Your task to perform on an android device: Open internet settings Image 0: 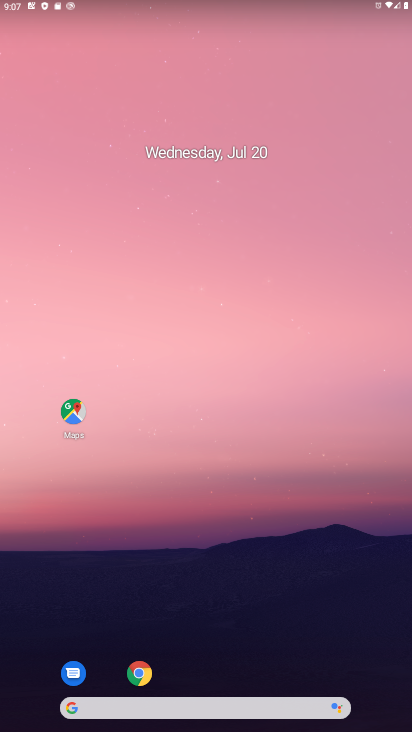
Step 0: drag from (207, 725) to (227, 283)
Your task to perform on an android device: Open internet settings Image 1: 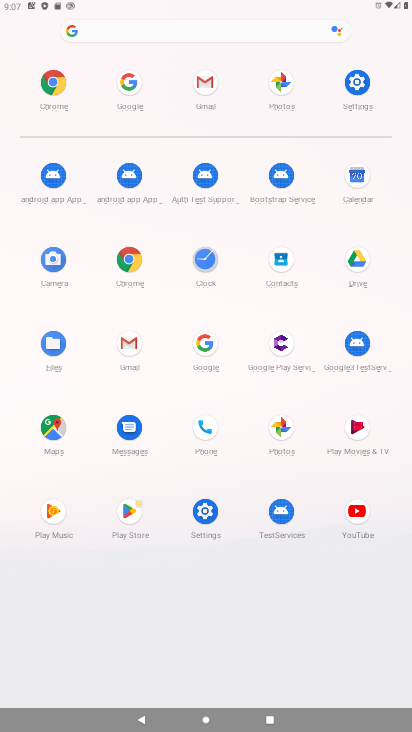
Step 1: click (363, 80)
Your task to perform on an android device: Open internet settings Image 2: 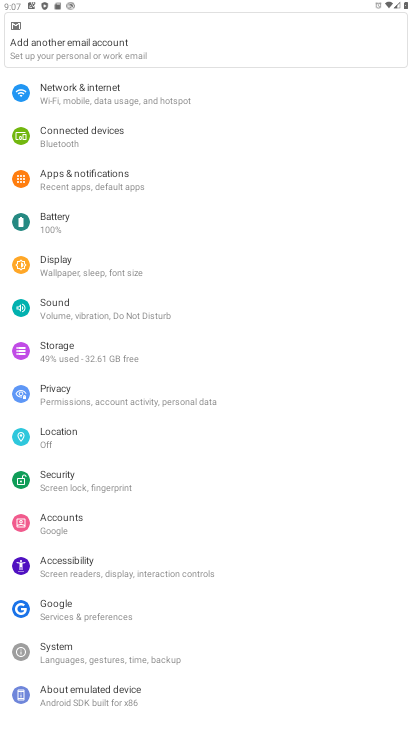
Step 2: click (115, 92)
Your task to perform on an android device: Open internet settings Image 3: 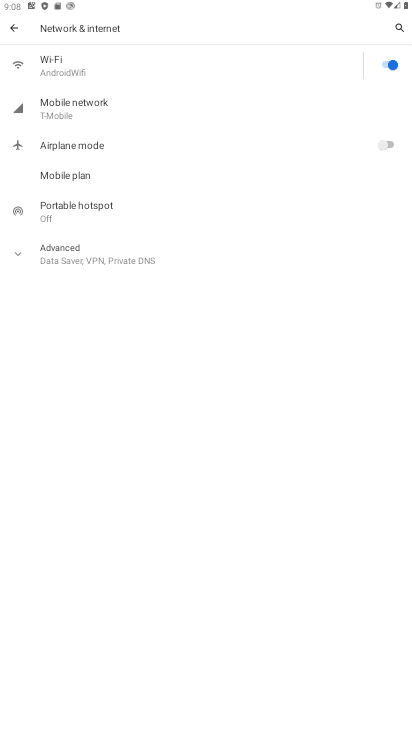
Step 3: task complete